Your task to perform on an android device: What is the recent news? Image 0: 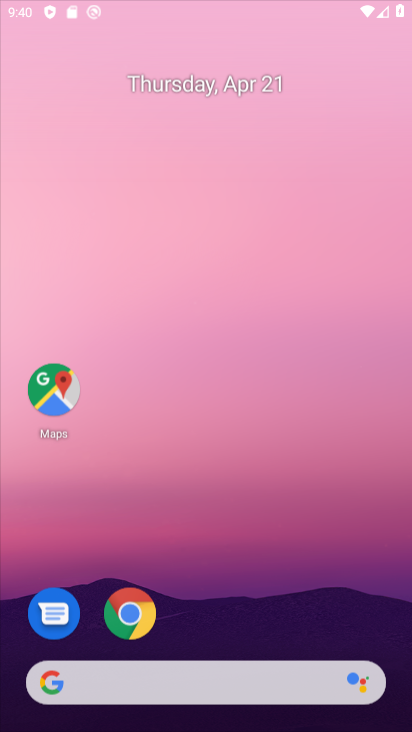
Step 0: click (232, 90)
Your task to perform on an android device: What is the recent news? Image 1: 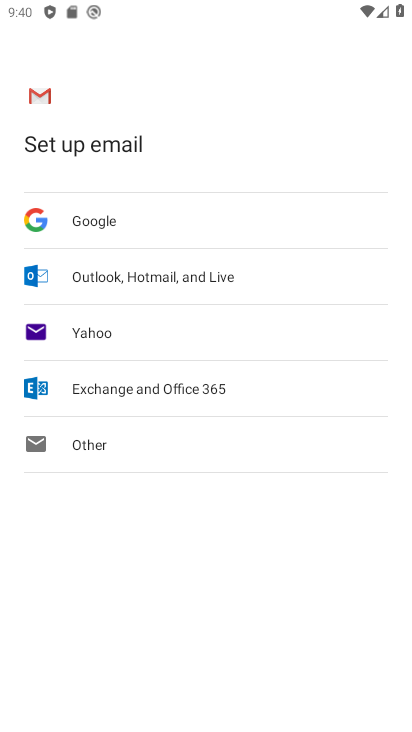
Step 1: task complete